Your task to perform on an android device: What is the news today? Image 0: 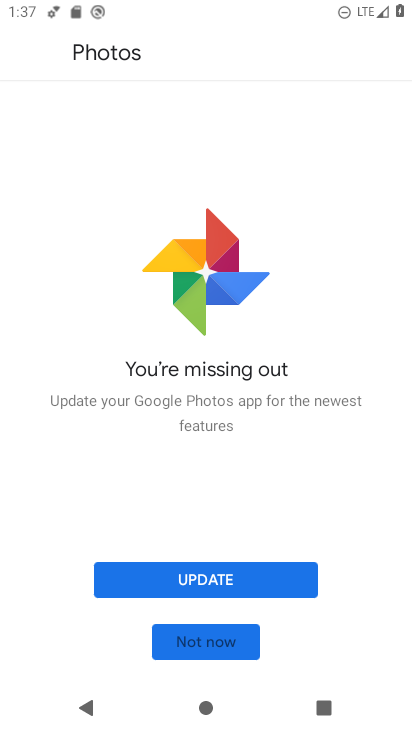
Step 0: press home button
Your task to perform on an android device: What is the news today? Image 1: 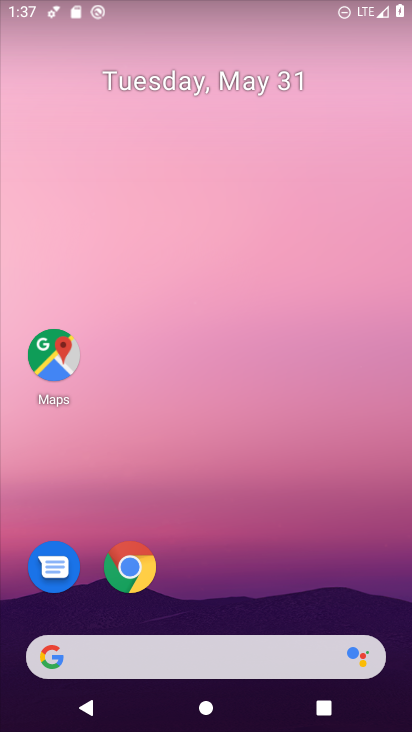
Step 1: drag from (211, 613) to (219, 217)
Your task to perform on an android device: What is the news today? Image 2: 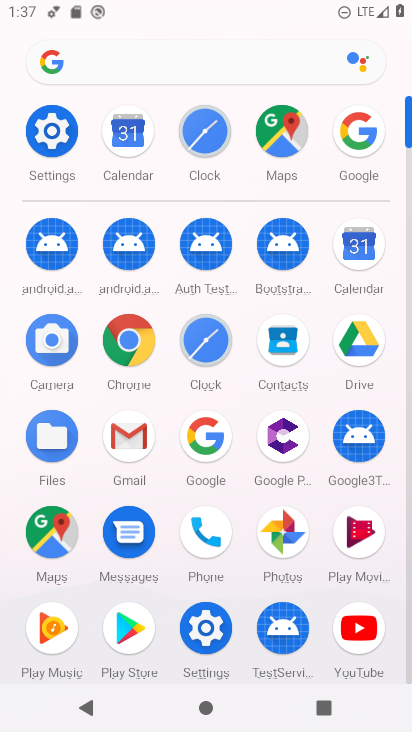
Step 2: click (369, 129)
Your task to perform on an android device: What is the news today? Image 3: 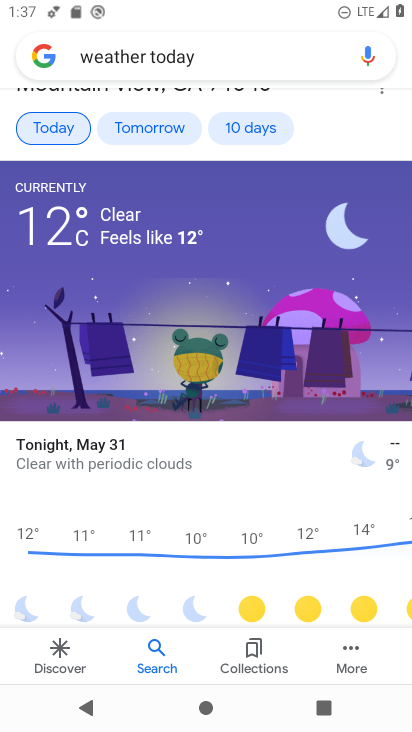
Step 3: click (207, 63)
Your task to perform on an android device: What is the news today? Image 4: 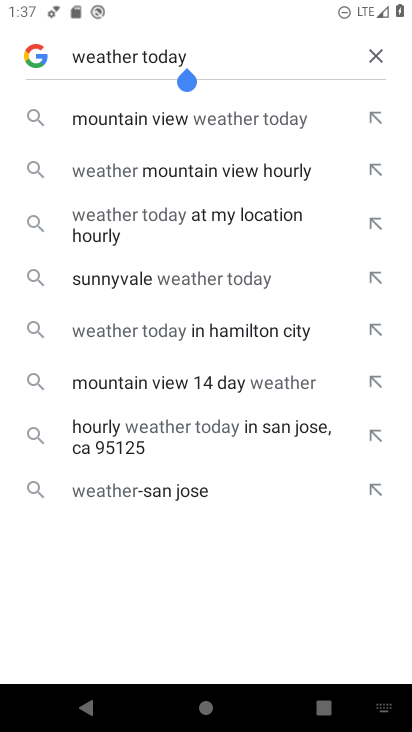
Step 4: click (381, 54)
Your task to perform on an android device: What is the news today? Image 5: 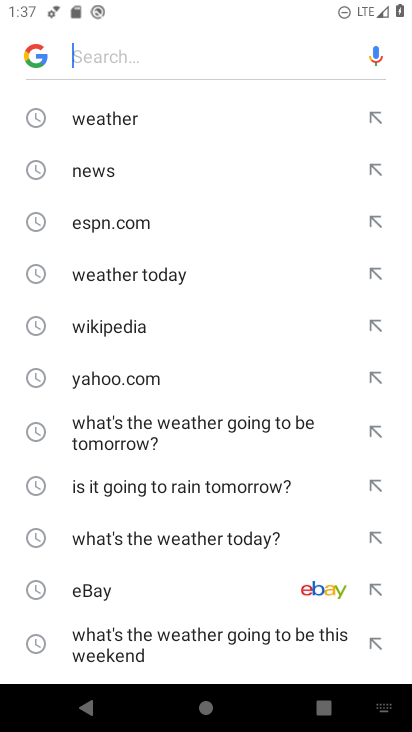
Step 5: click (121, 165)
Your task to perform on an android device: What is the news today? Image 6: 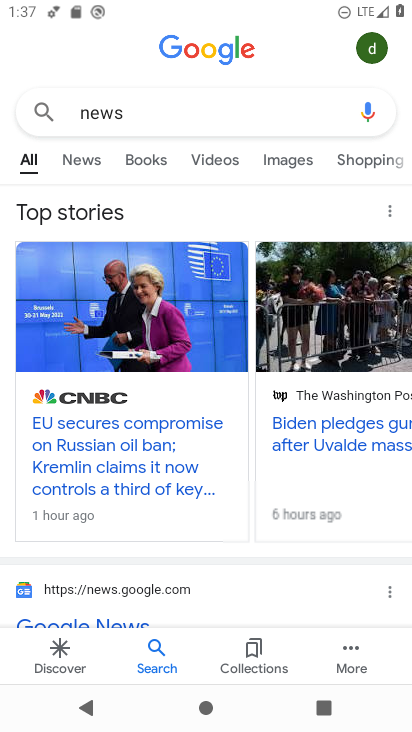
Step 6: click (82, 168)
Your task to perform on an android device: What is the news today? Image 7: 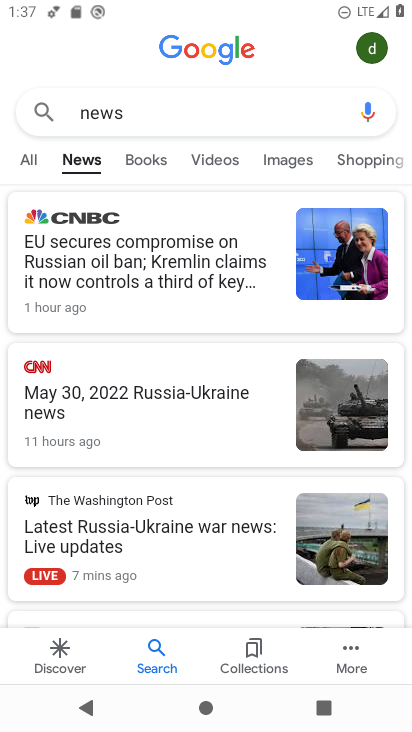
Step 7: task complete